Your task to perform on an android device: Open calendar and show me the fourth week of next month Image 0: 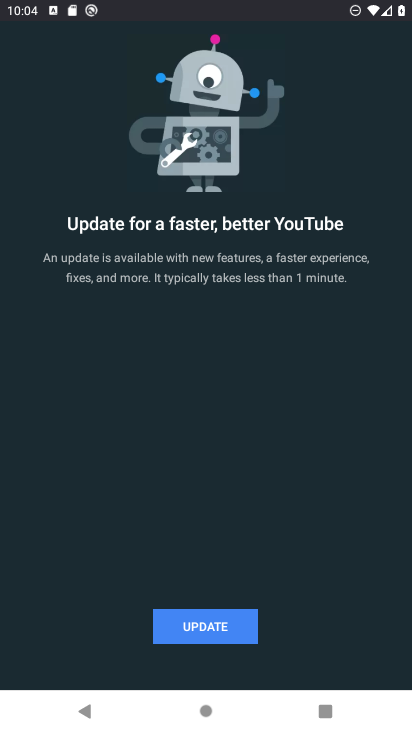
Step 0: press home button
Your task to perform on an android device: Open calendar and show me the fourth week of next month Image 1: 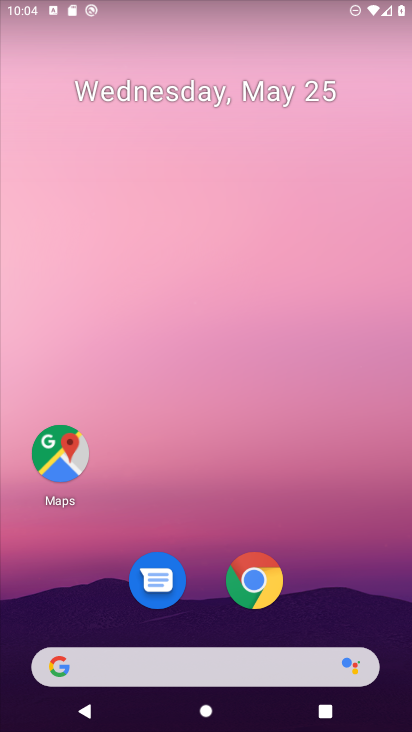
Step 1: drag from (20, 554) to (145, 223)
Your task to perform on an android device: Open calendar and show me the fourth week of next month Image 2: 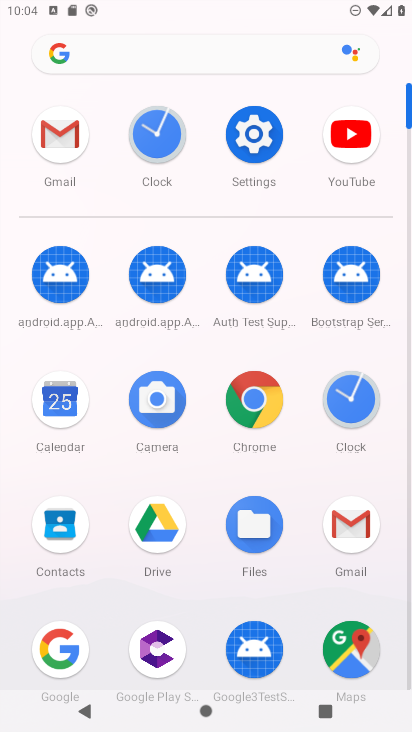
Step 2: click (57, 385)
Your task to perform on an android device: Open calendar and show me the fourth week of next month Image 3: 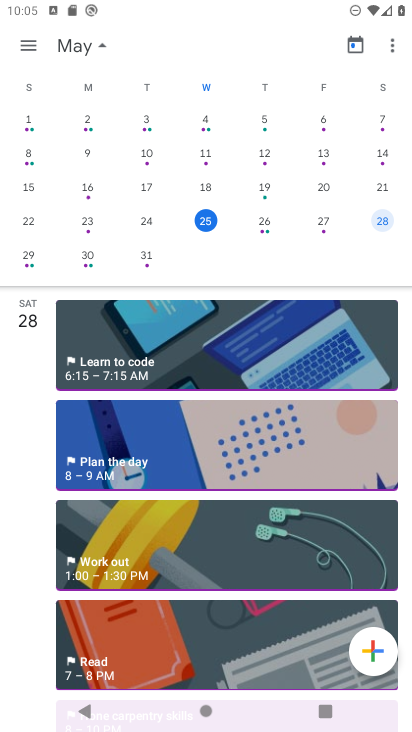
Step 3: task complete